Your task to perform on an android device: Go to accessibility settings Image 0: 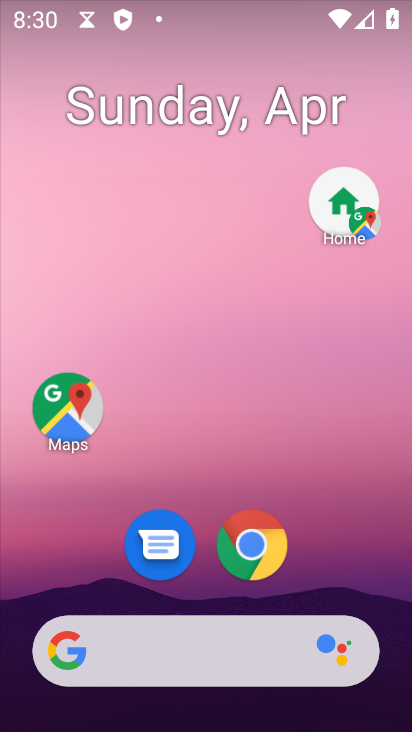
Step 0: drag from (306, 472) to (278, 204)
Your task to perform on an android device: Go to accessibility settings Image 1: 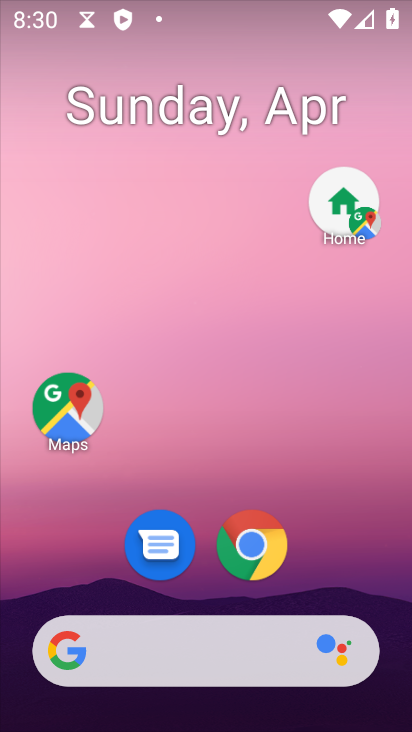
Step 1: drag from (265, 562) to (341, 235)
Your task to perform on an android device: Go to accessibility settings Image 2: 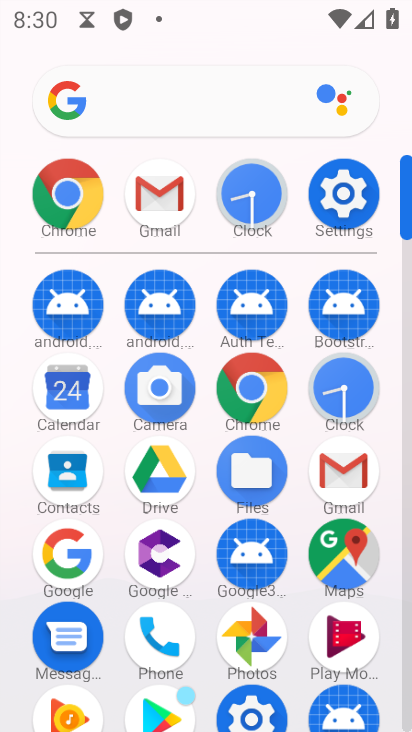
Step 2: click (338, 188)
Your task to perform on an android device: Go to accessibility settings Image 3: 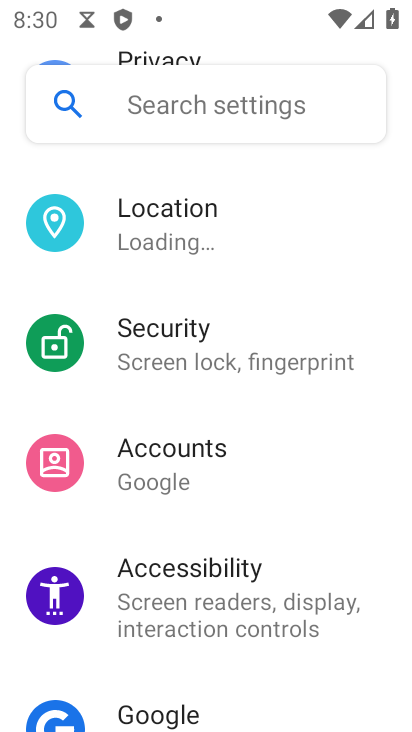
Step 3: drag from (217, 649) to (219, 567)
Your task to perform on an android device: Go to accessibility settings Image 4: 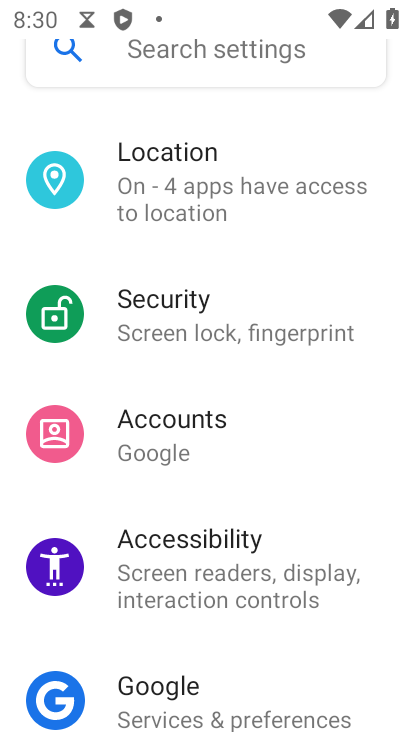
Step 4: click (206, 561)
Your task to perform on an android device: Go to accessibility settings Image 5: 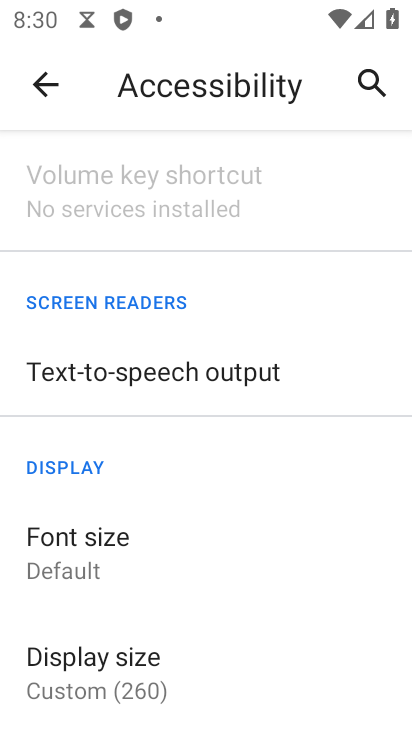
Step 5: task complete